Your task to perform on an android device: change text size in settings app Image 0: 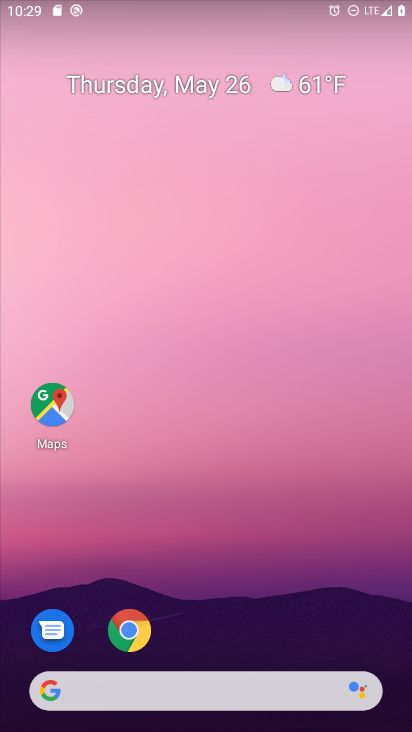
Step 0: drag from (212, 644) to (155, 157)
Your task to perform on an android device: change text size in settings app Image 1: 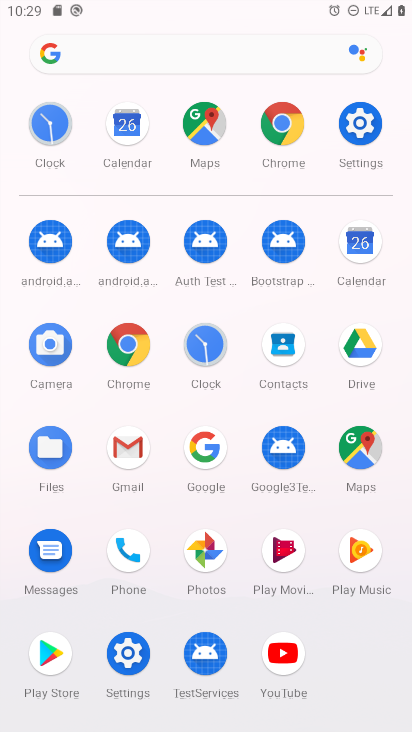
Step 1: click (128, 651)
Your task to perform on an android device: change text size in settings app Image 2: 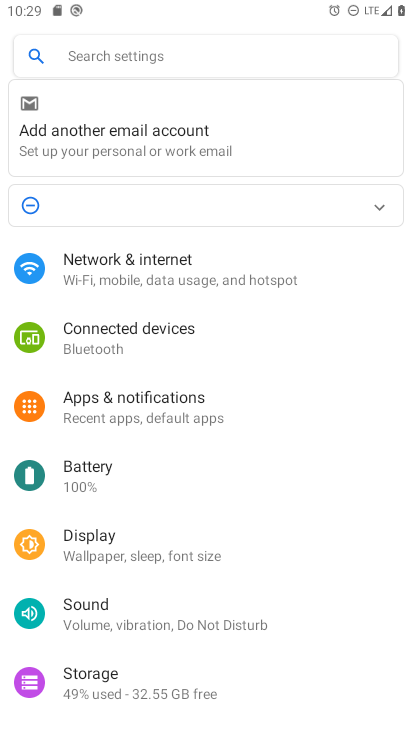
Step 2: click (96, 569)
Your task to perform on an android device: change text size in settings app Image 3: 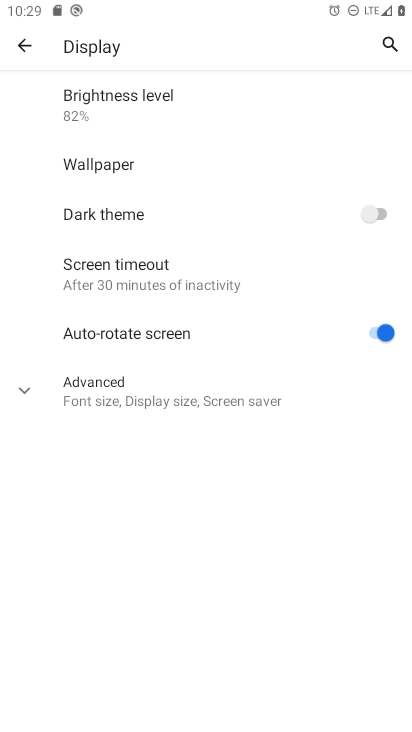
Step 3: click (138, 377)
Your task to perform on an android device: change text size in settings app Image 4: 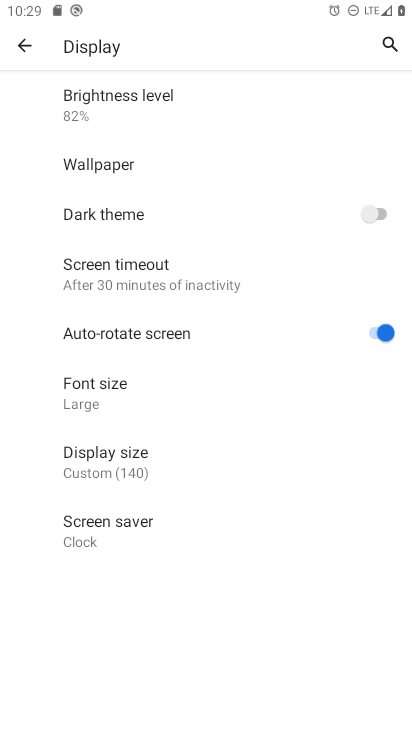
Step 4: click (104, 390)
Your task to perform on an android device: change text size in settings app Image 5: 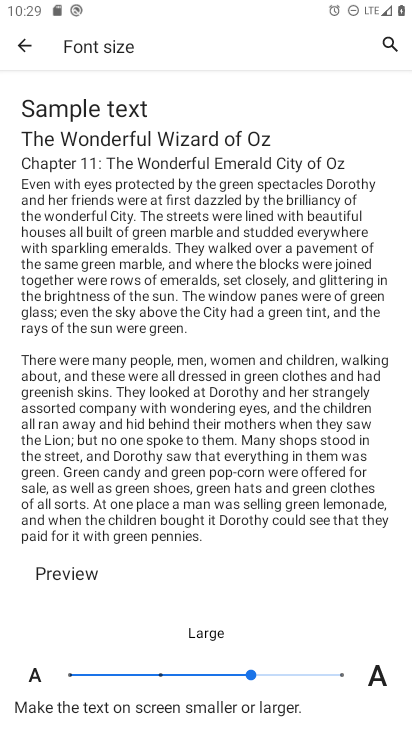
Step 5: click (160, 671)
Your task to perform on an android device: change text size in settings app Image 6: 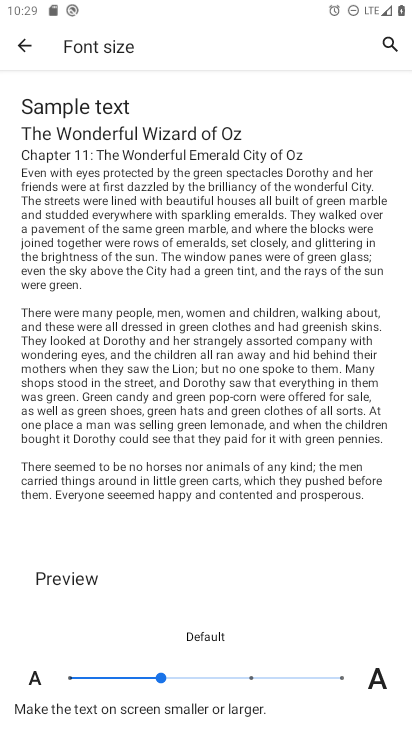
Step 6: task complete